Your task to perform on an android device: Open Wikipedia Image 0: 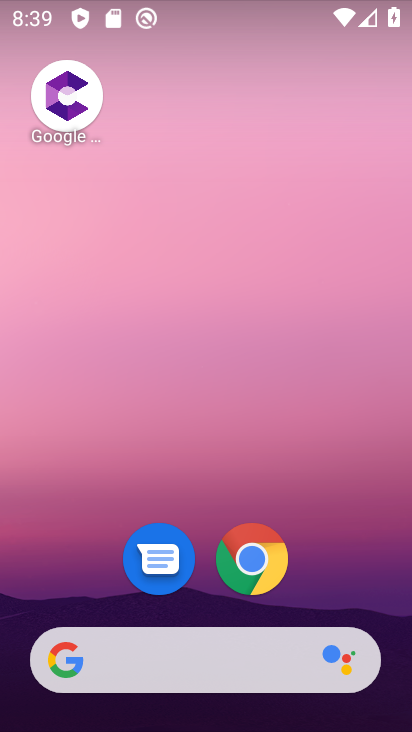
Step 0: drag from (307, 575) to (342, 78)
Your task to perform on an android device: Open Wikipedia Image 1: 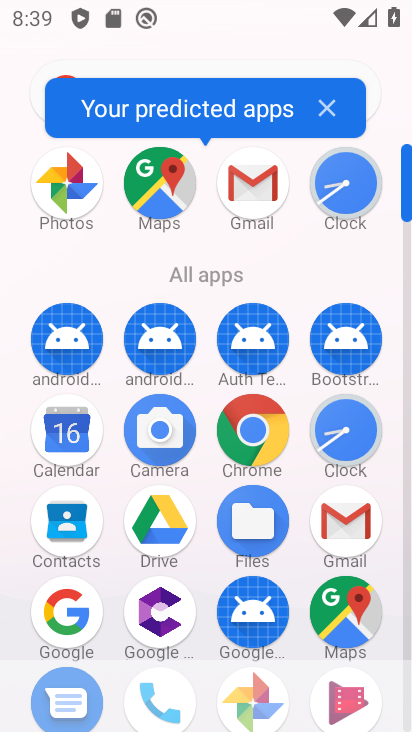
Step 1: drag from (297, 555) to (312, 145)
Your task to perform on an android device: Open Wikipedia Image 2: 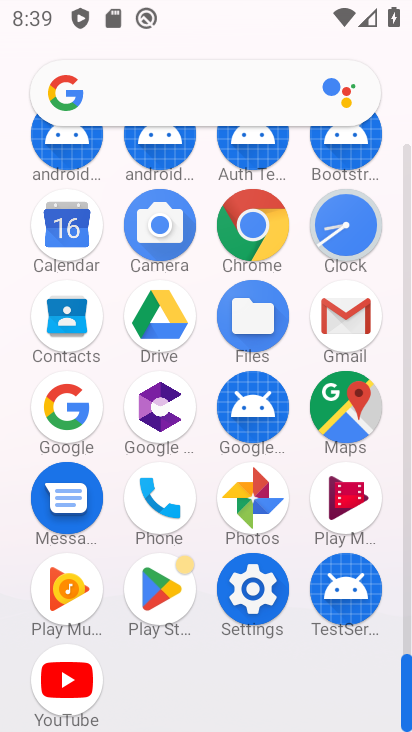
Step 2: click (254, 217)
Your task to perform on an android device: Open Wikipedia Image 3: 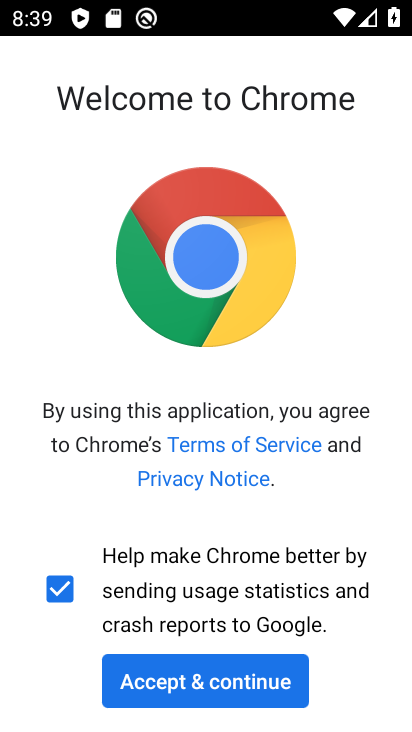
Step 3: click (242, 680)
Your task to perform on an android device: Open Wikipedia Image 4: 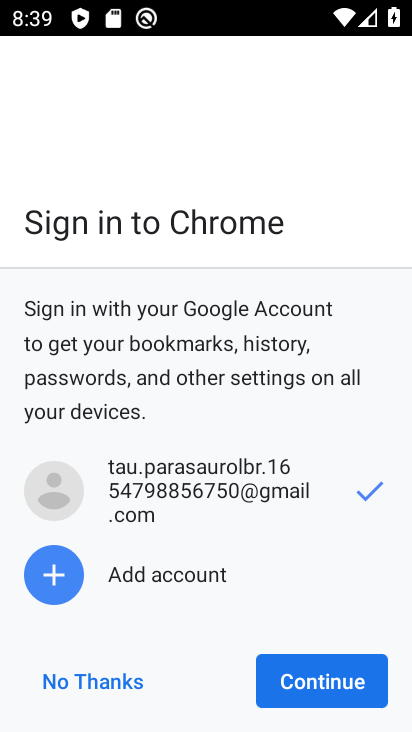
Step 4: click (306, 680)
Your task to perform on an android device: Open Wikipedia Image 5: 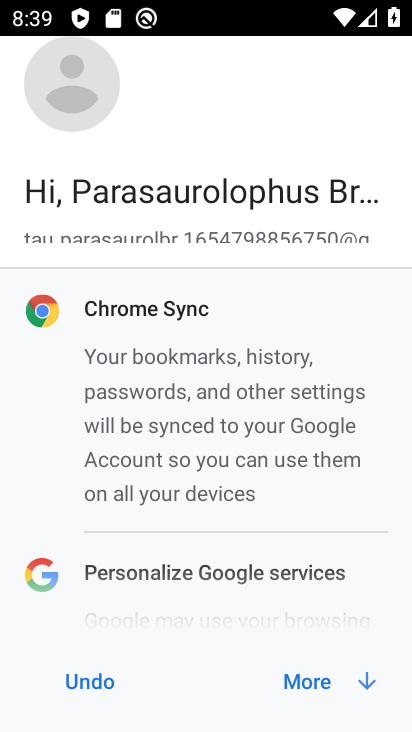
Step 5: click (308, 675)
Your task to perform on an android device: Open Wikipedia Image 6: 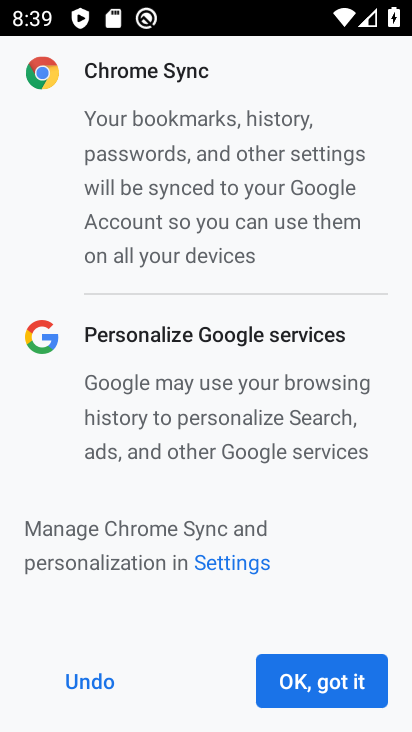
Step 6: click (335, 687)
Your task to perform on an android device: Open Wikipedia Image 7: 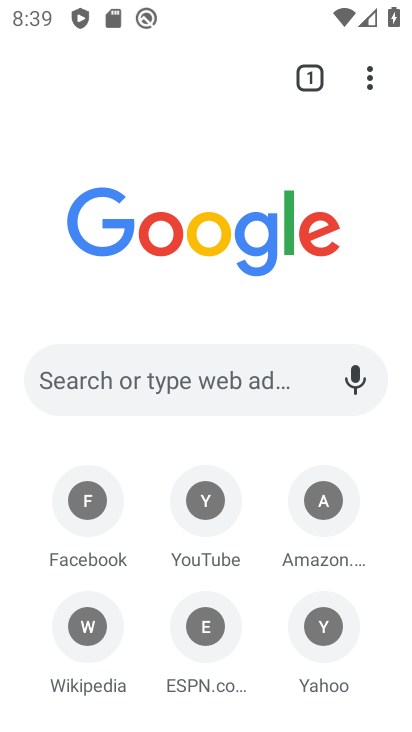
Step 7: click (138, 64)
Your task to perform on an android device: Open Wikipedia Image 8: 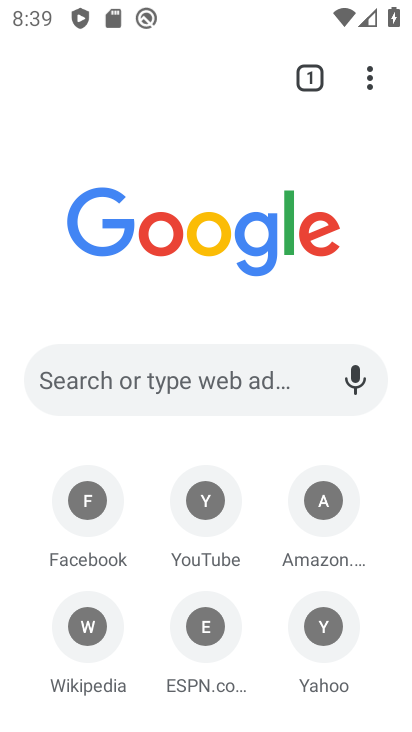
Step 8: click (215, 378)
Your task to perform on an android device: Open Wikipedia Image 9: 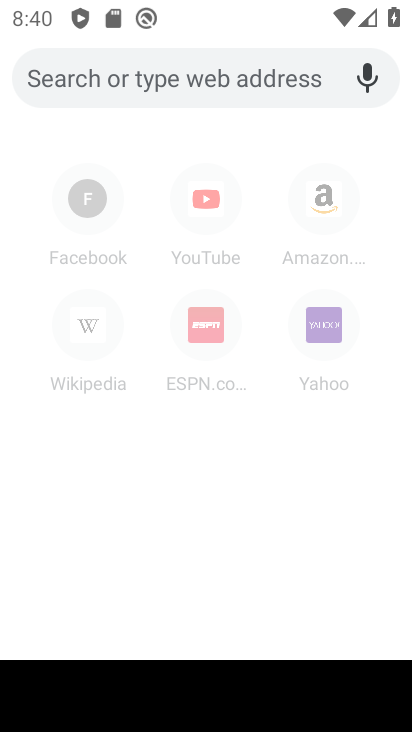
Step 9: type "Wikipedia"
Your task to perform on an android device: Open Wikipedia Image 10: 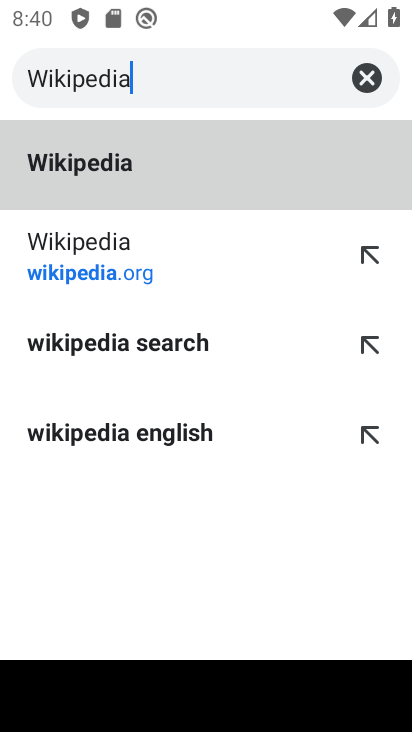
Step 10: click (60, 269)
Your task to perform on an android device: Open Wikipedia Image 11: 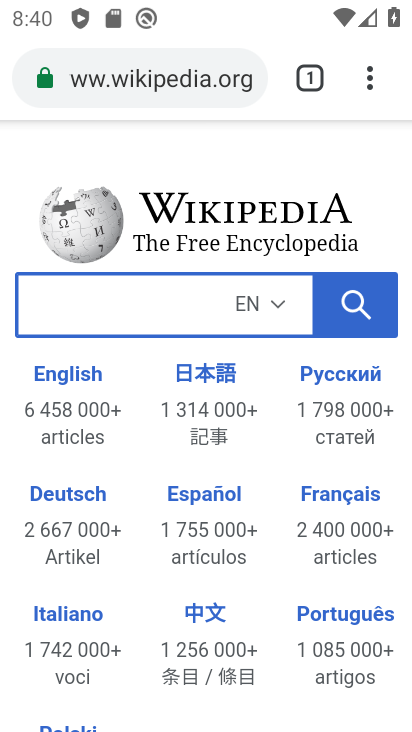
Step 11: task complete